Your task to perform on an android device: Go to sound settings Image 0: 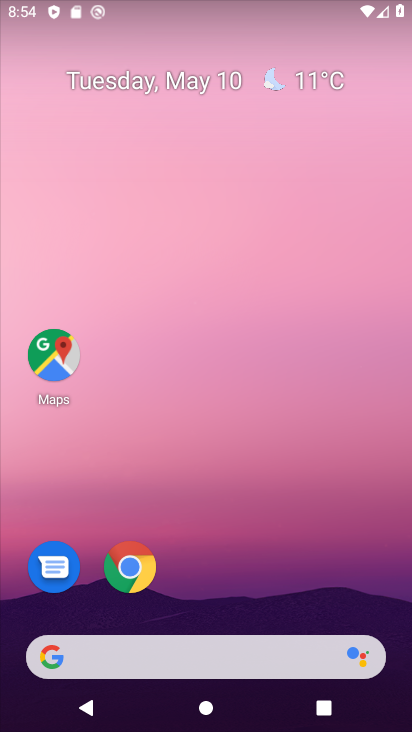
Step 0: drag from (141, 633) to (167, 99)
Your task to perform on an android device: Go to sound settings Image 1: 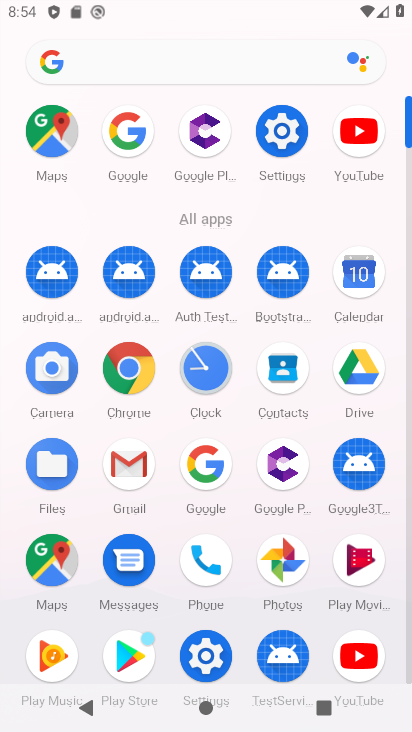
Step 1: click (199, 659)
Your task to perform on an android device: Go to sound settings Image 2: 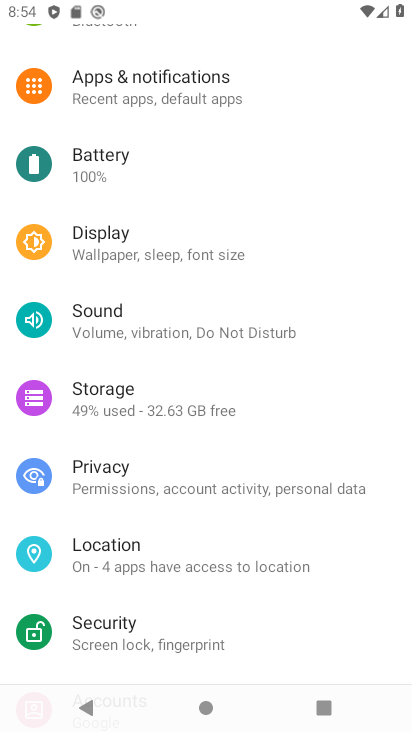
Step 2: click (153, 324)
Your task to perform on an android device: Go to sound settings Image 3: 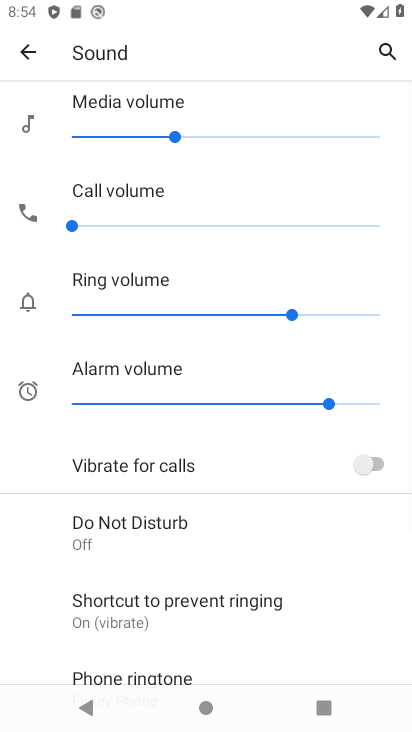
Step 3: drag from (169, 627) to (195, 223)
Your task to perform on an android device: Go to sound settings Image 4: 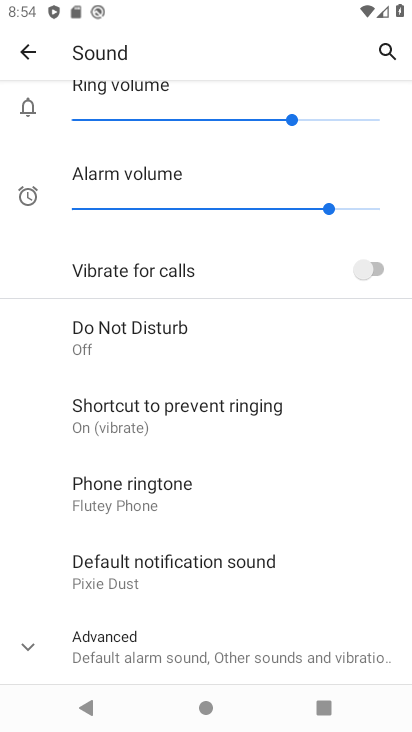
Step 4: drag from (230, 322) to (258, 24)
Your task to perform on an android device: Go to sound settings Image 5: 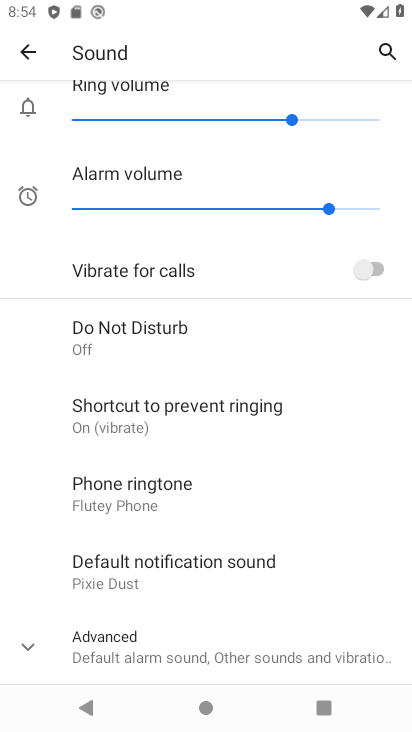
Step 5: click (130, 662)
Your task to perform on an android device: Go to sound settings Image 6: 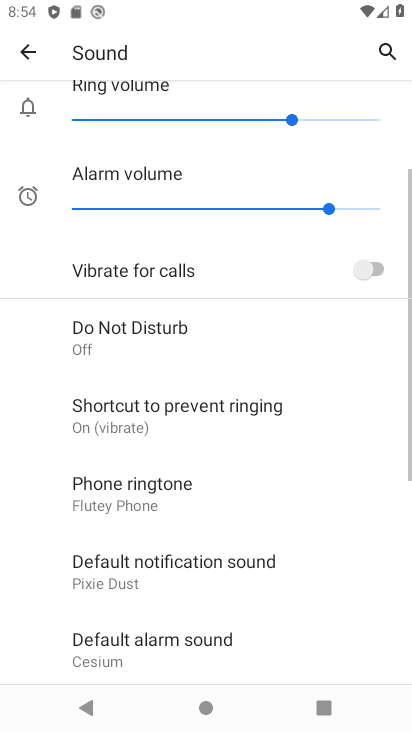
Step 6: task complete